Your task to perform on an android device: manage bookmarks in the chrome app Image 0: 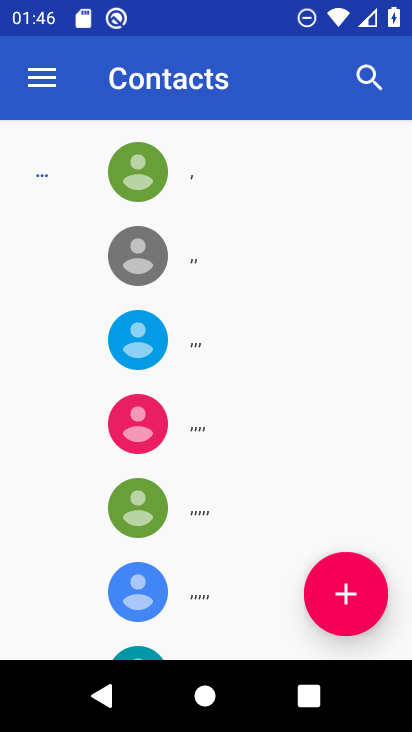
Step 0: press home button
Your task to perform on an android device: manage bookmarks in the chrome app Image 1: 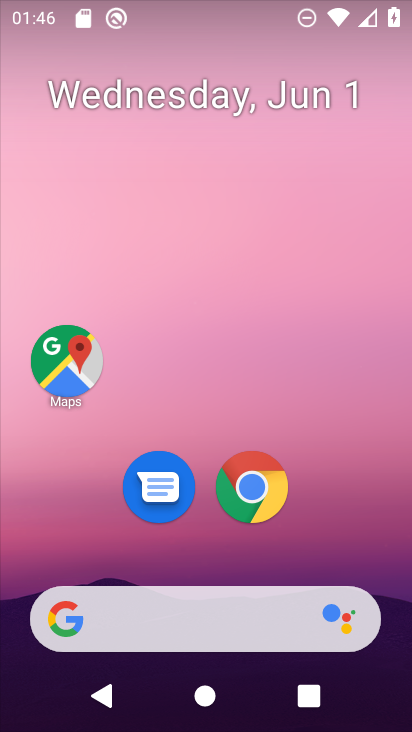
Step 1: click (255, 496)
Your task to perform on an android device: manage bookmarks in the chrome app Image 2: 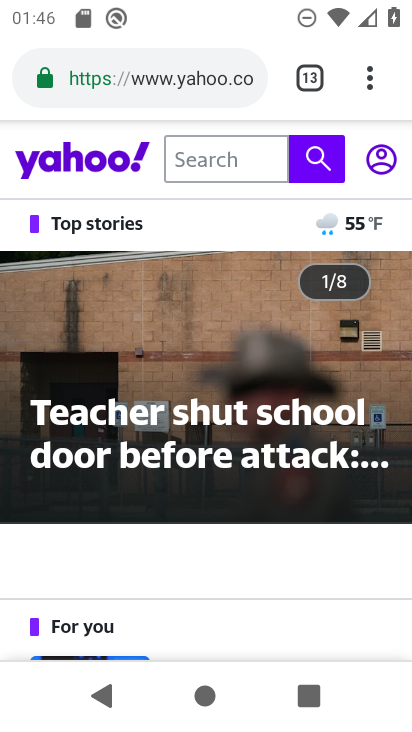
Step 2: click (393, 65)
Your task to perform on an android device: manage bookmarks in the chrome app Image 3: 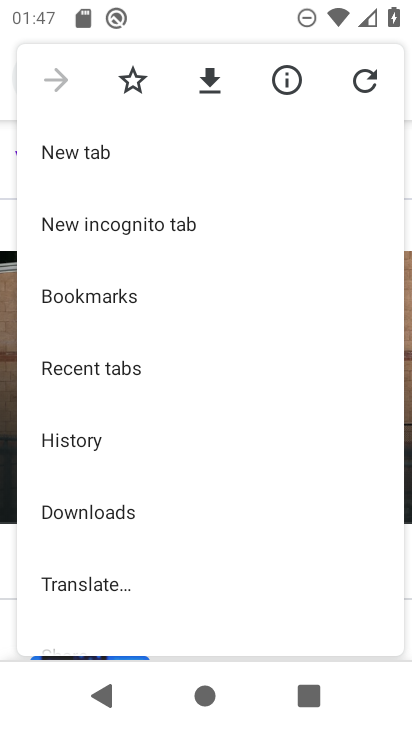
Step 3: click (91, 316)
Your task to perform on an android device: manage bookmarks in the chrome app Image 4: 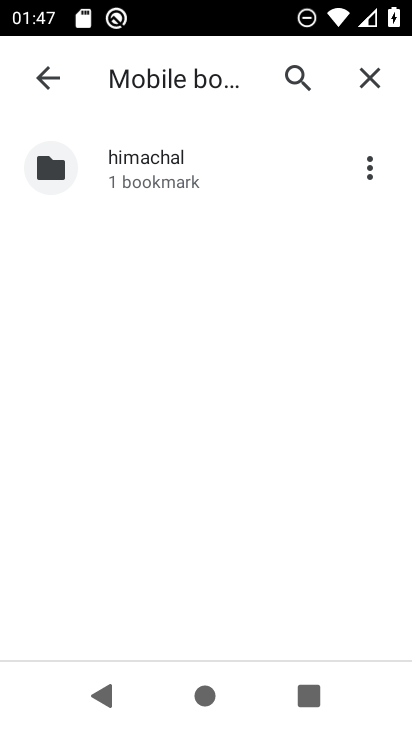
Step 4: click (158, 174)
Your task to perform on an android device: manage bookmarks in the chrome app Image 5: 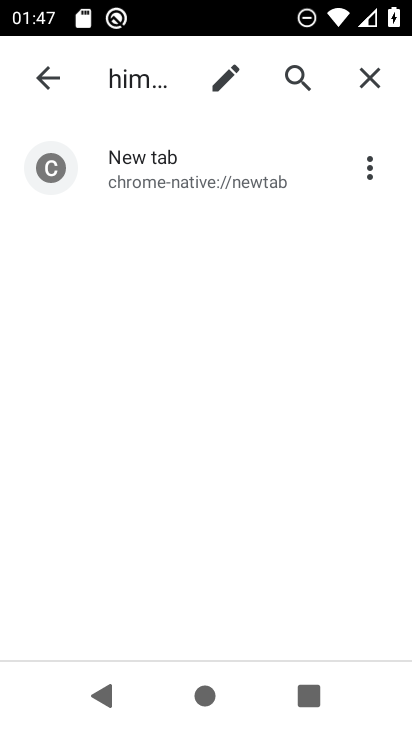
Step 5: click (158, 174)
Your task to perform on an android device: manage bookmarks in the chrome app Image 6: 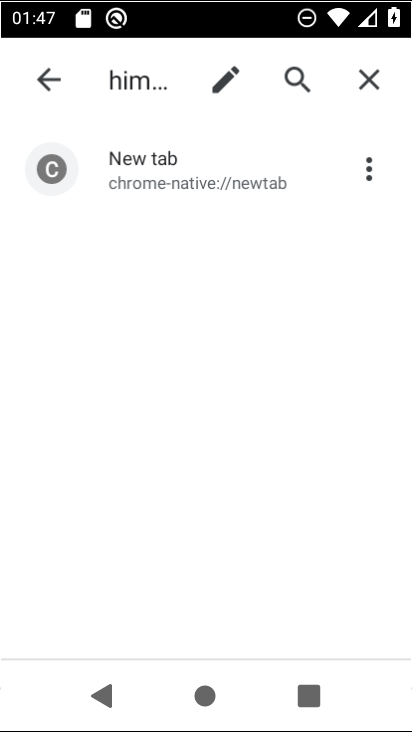
Step 6: click (158, 174)
Your task to perform on an android device: manage bookmarks in the chrome app Image 7: 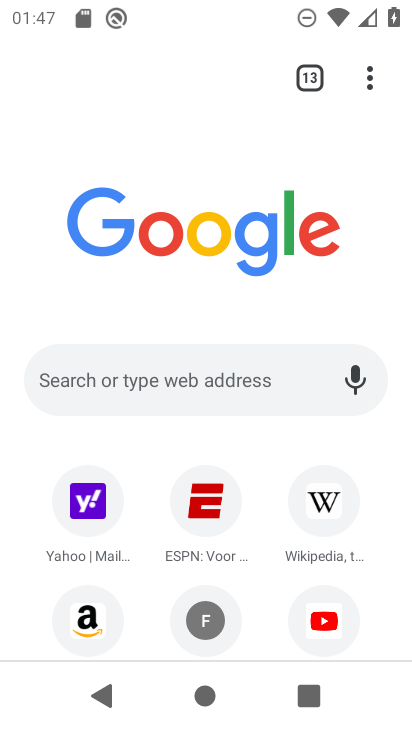
Step 7: task complete